Your task to perform on an android device: turn off wifi Image 0: 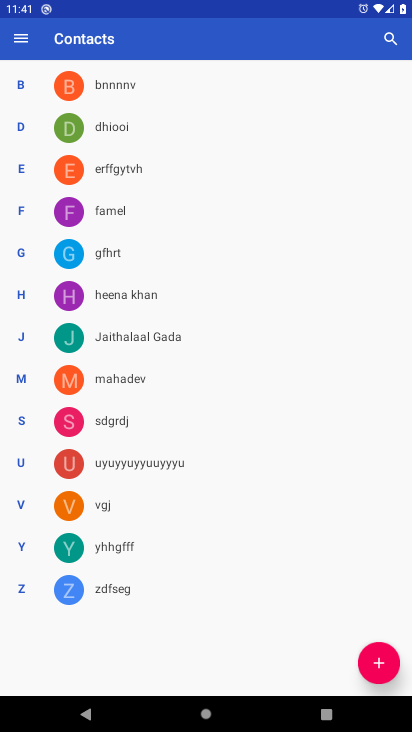
Step 0: press home button
Your task to perform on an android device: turn off wifi Image 1: 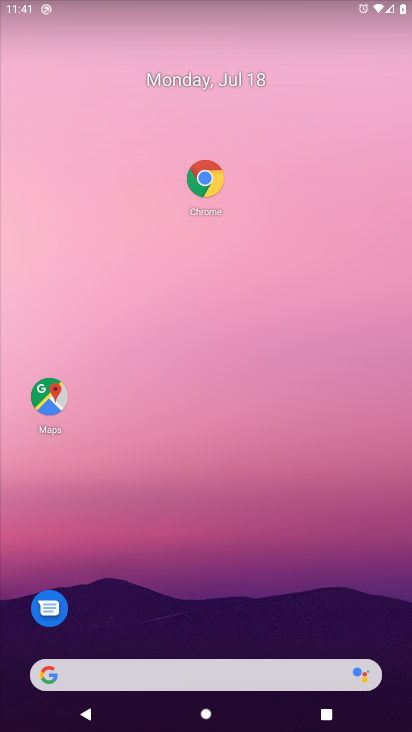
Step 1: drag from (16, 677) to (165, 115)
Your task to perform on an android device: turn off wifi Image 2: 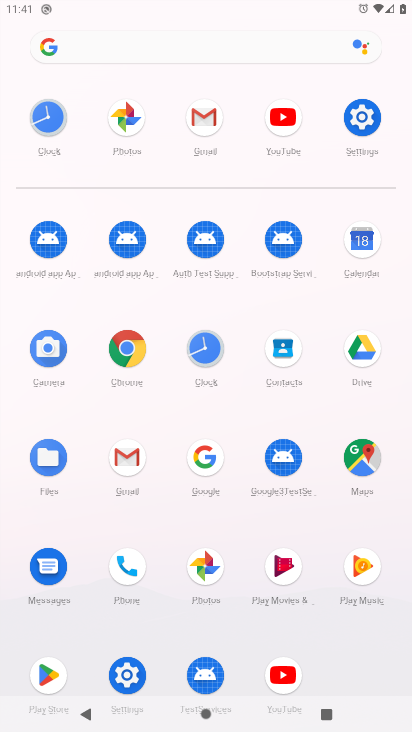
Step 2: click (137, 673)
Your task to perform on an android device: turn off wifi Image 3: 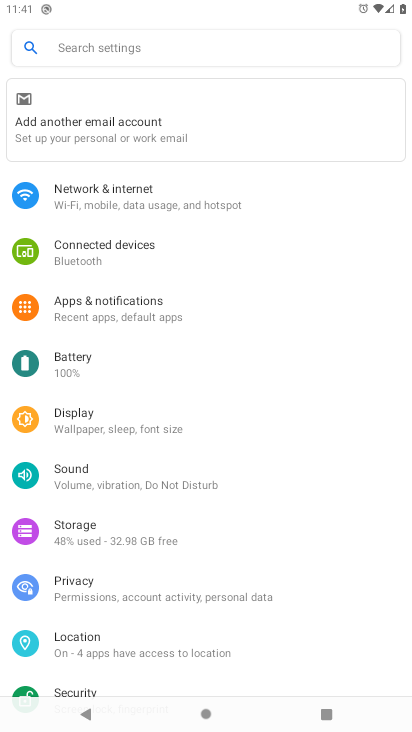
Step 3: click (127, 196)
Your task to perform on an android device: turn off wifi Image 4: 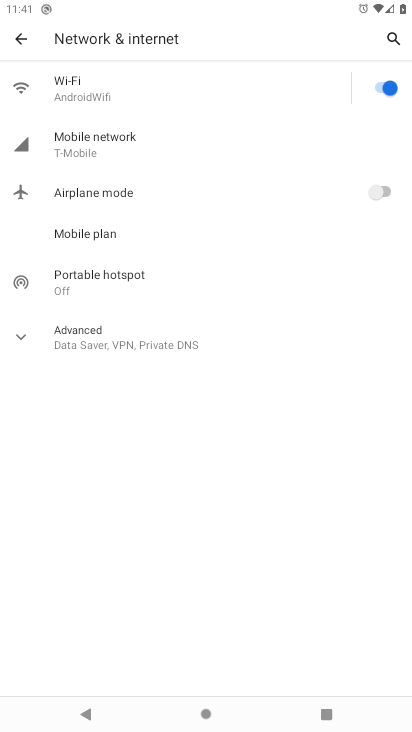
Step 4: click (380, 81)
Your task to perform on an android device: turn off wifi Image 5: 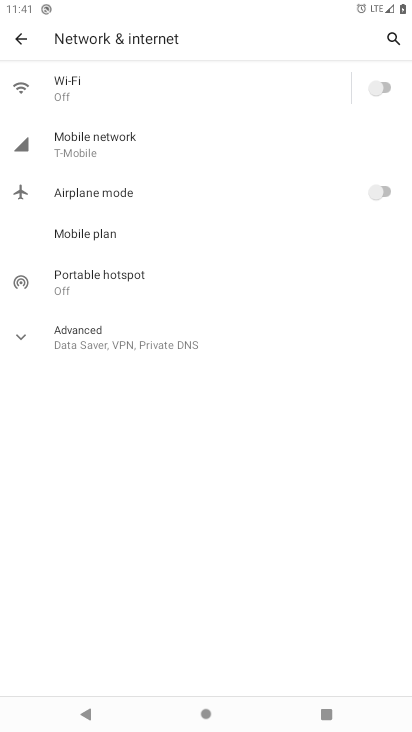
Step 5: task complete